Your task to perform on an android device: open app "Google News" (install if not already installed) Image 0: 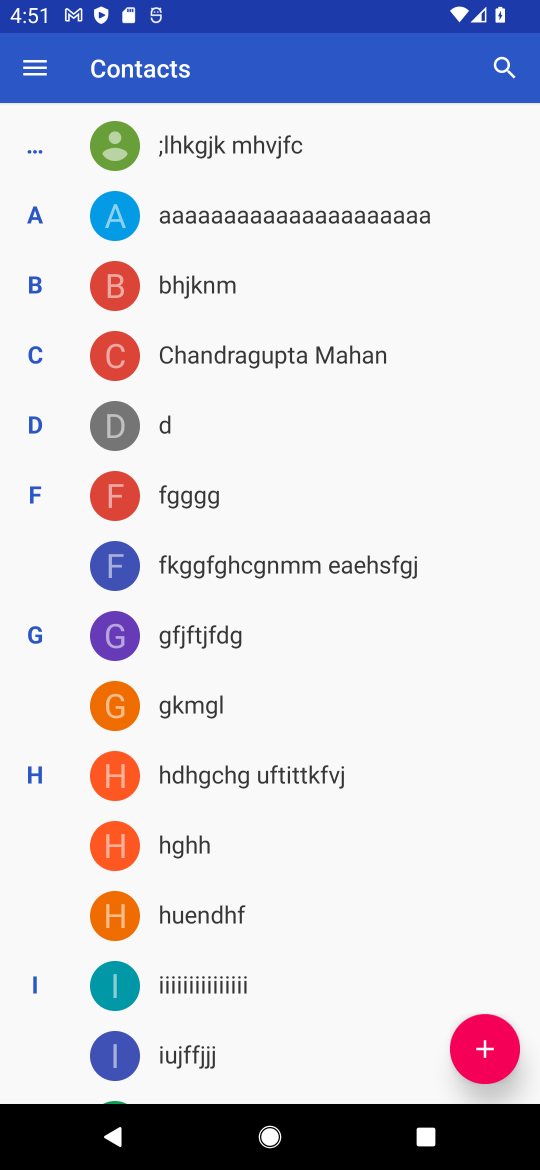
Step 0: press home button
Your task to perform on an android device: open app "Google News" (install if not already installed) Image 1: 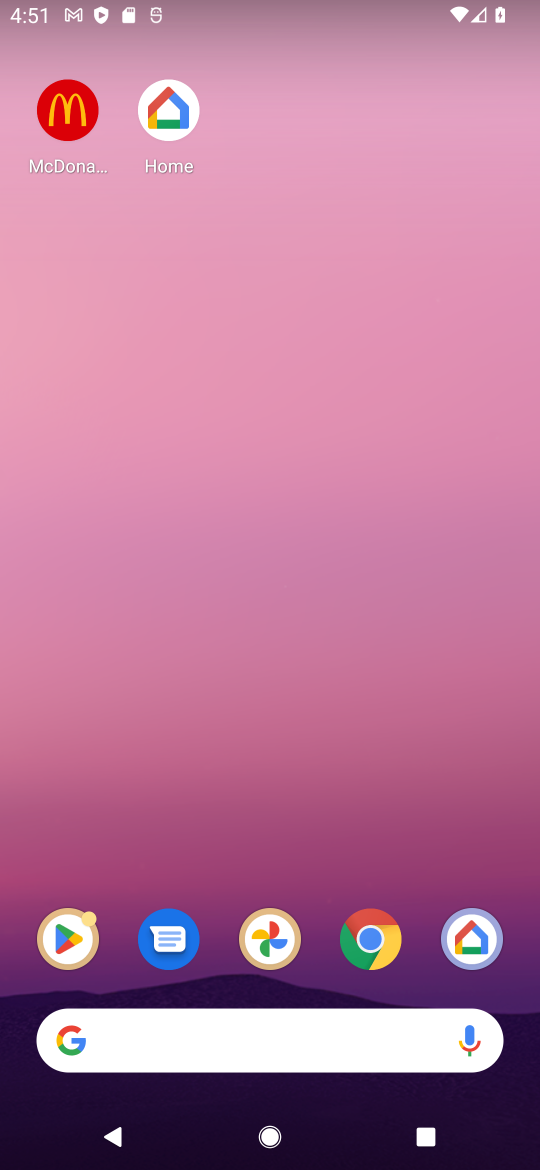
Step 1: click (69, 928)
Your task to perform on an android device: open app "Google News" (install if not already installed) Image 2: 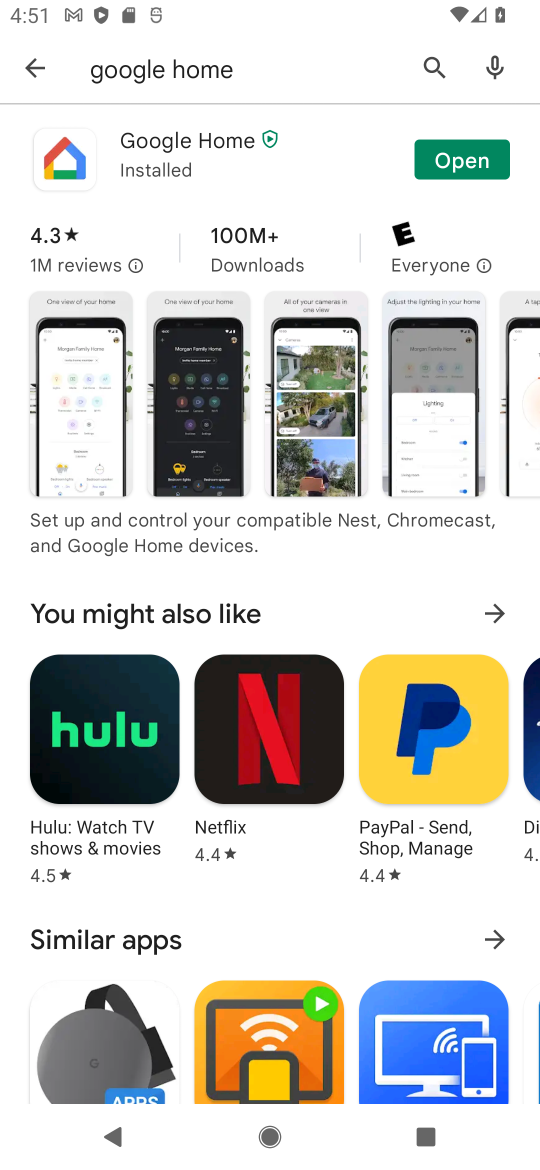
Step 2: click (426, 52)
Your task to perform on an android device: open app "Google News" (install if not already installed) Image 3: 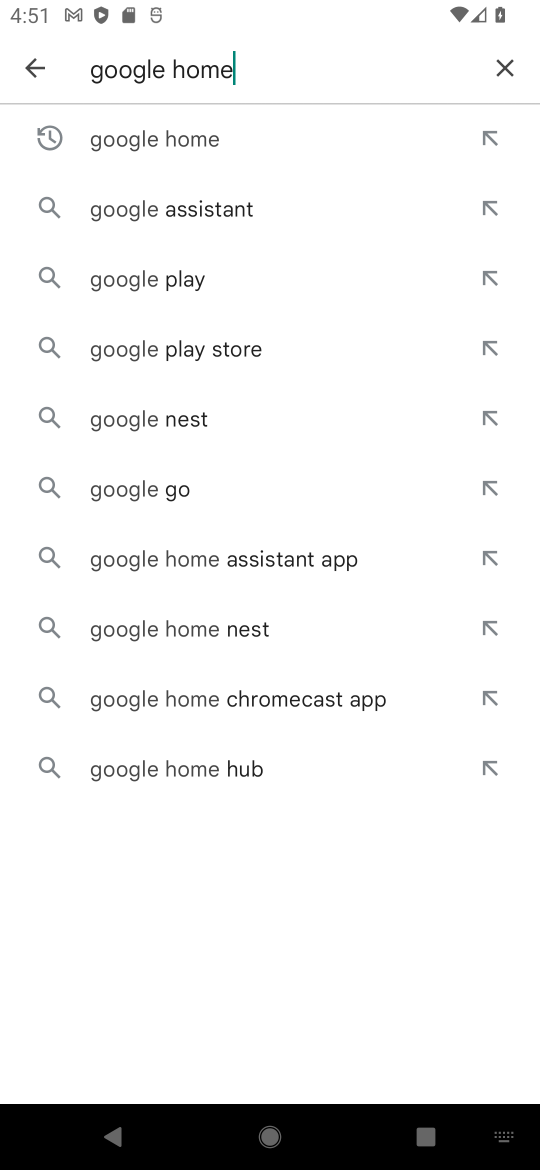
Step 3: click (498, 65)
Your task to perform on an android device: open app "Google News" (install if not already installed) Image 4: 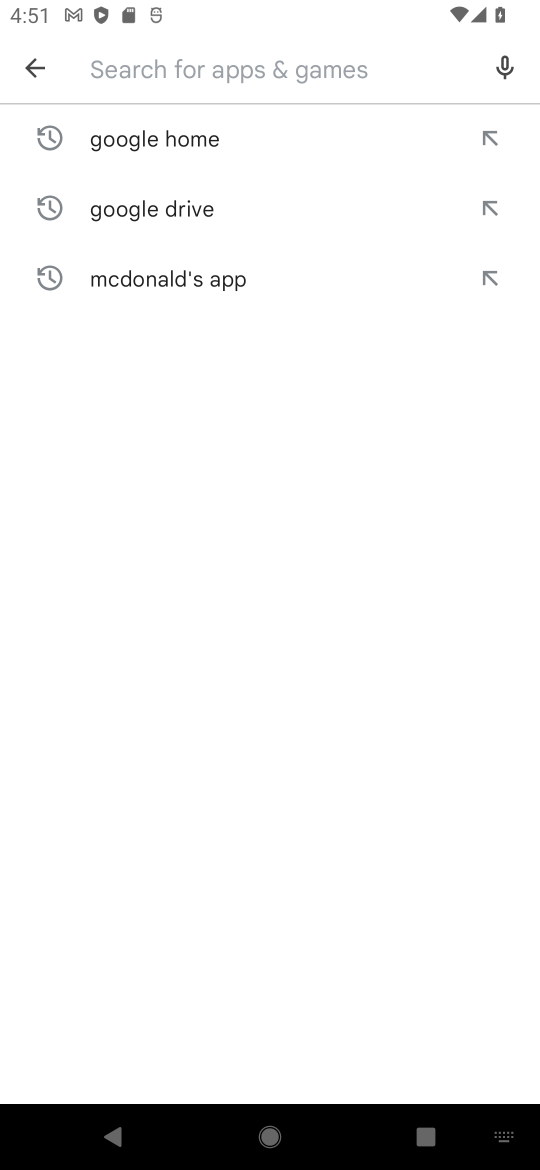
Step 4: type "google news"
Your task to perform on an android device: open app "Google News" (install if not already installed) Image 5: 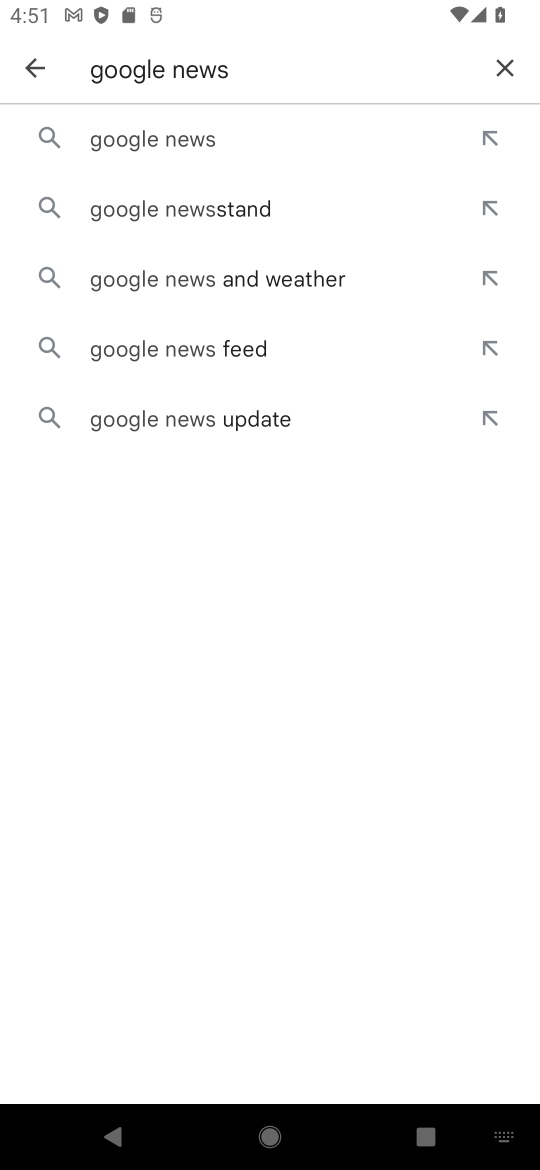
Step 5: click (331, 142)
Your task to perform on an android device: open app "Google News" (install if not already installed) Image 6: 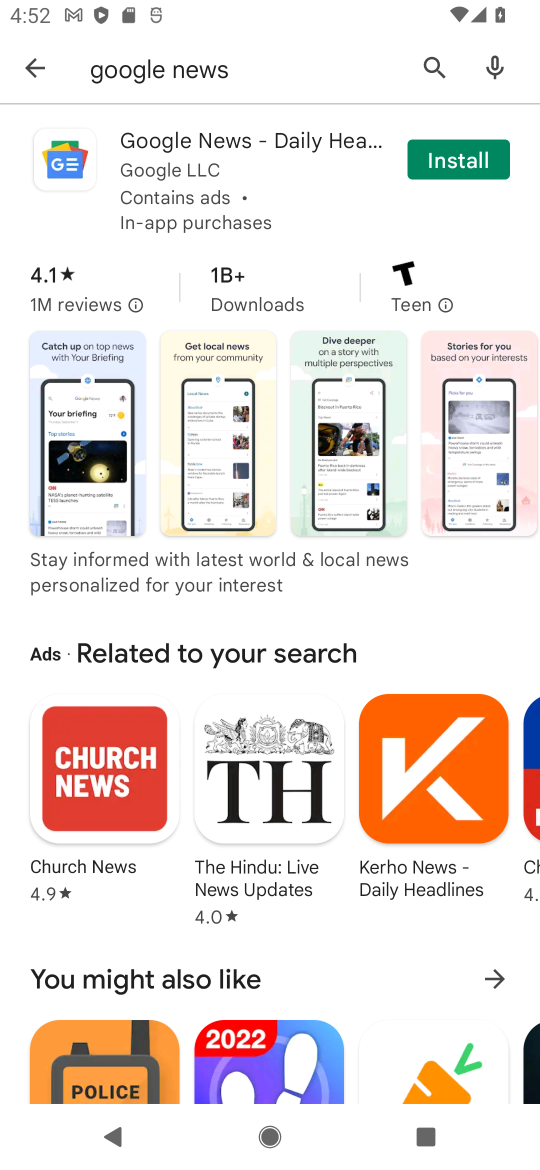
Step 6: click (471, 170)
Your task to perform on an android device: open app "Google News" (install if not already installed) Image 7: 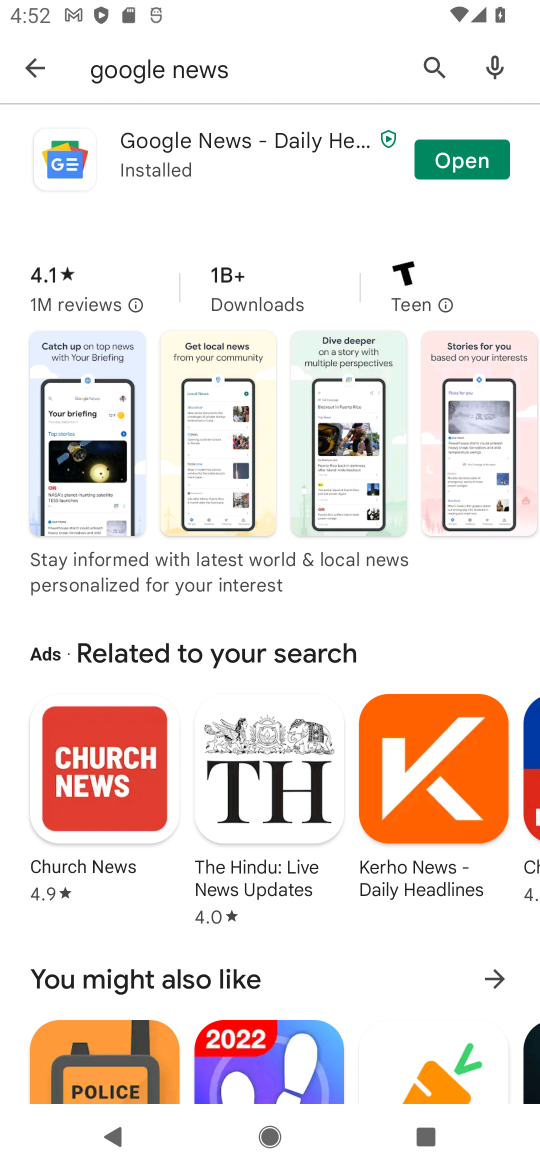
Step 7: click (471, 170)
Your task to perform on an android device: open app "Google News" (install if not already installed) Image 8: 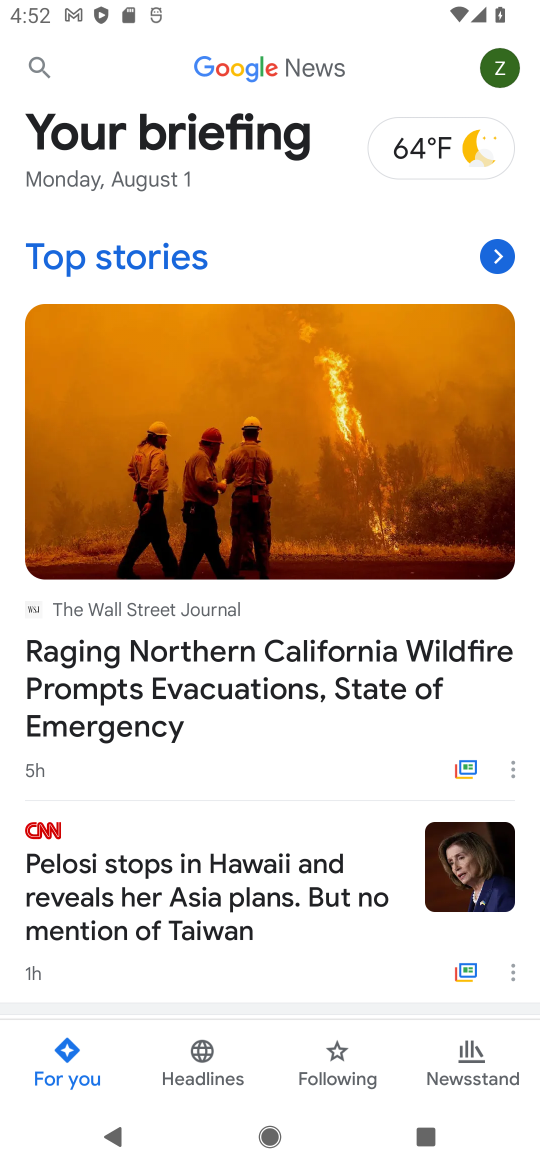
Step 8: task complete